Your task to perform on an android device: check battery use Image 0: 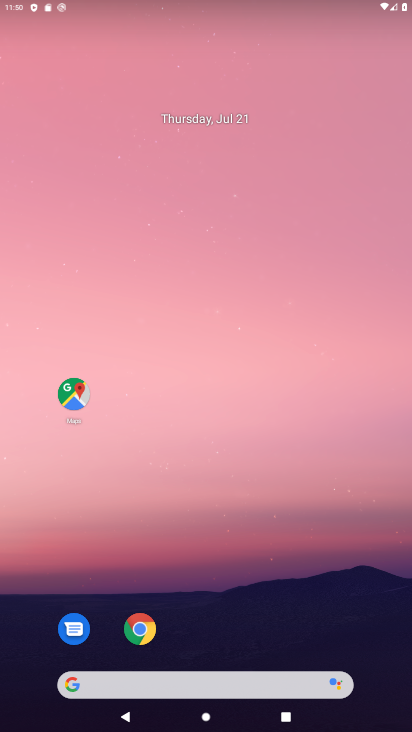
Step 0: drag from (255, 621) to (245, 3)
Your task to perform on an android device: check battery use Image 1: 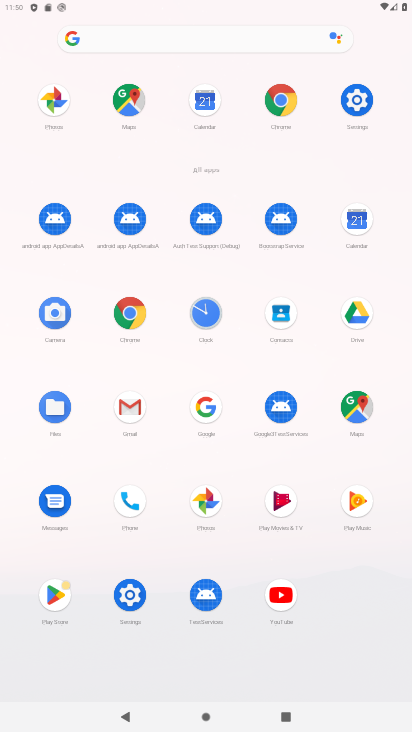
Step 1: click (367, 99)
Your task to perform on an android device: check battery use Image 2: 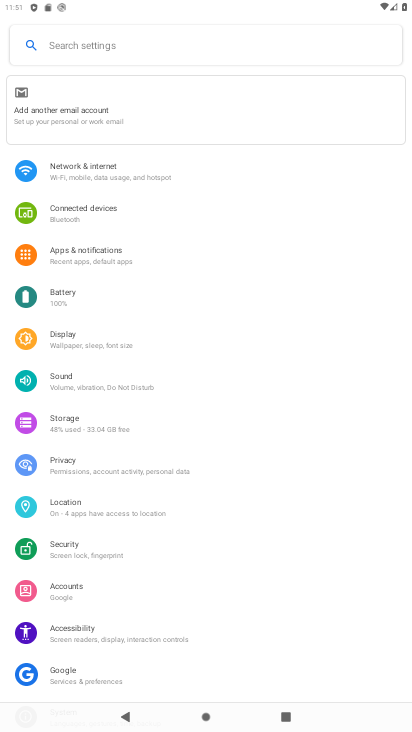
Step 2: click (103, 294)
Your task to perform on an android device: check battery use Image 3: 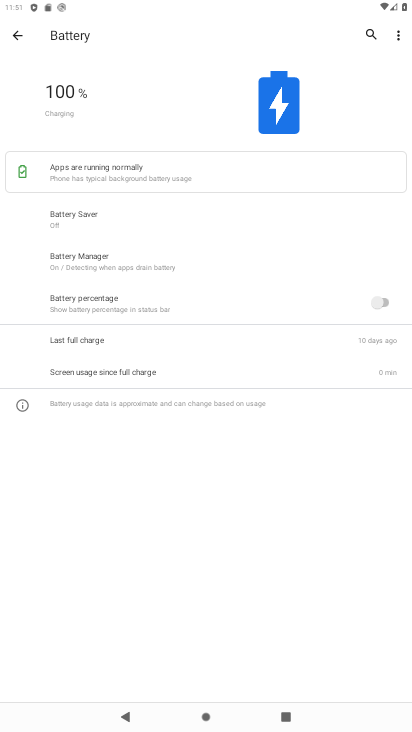
Step 3: task complete